Your task to perform on an android device: Clear the cart on costco.com. Image 0: 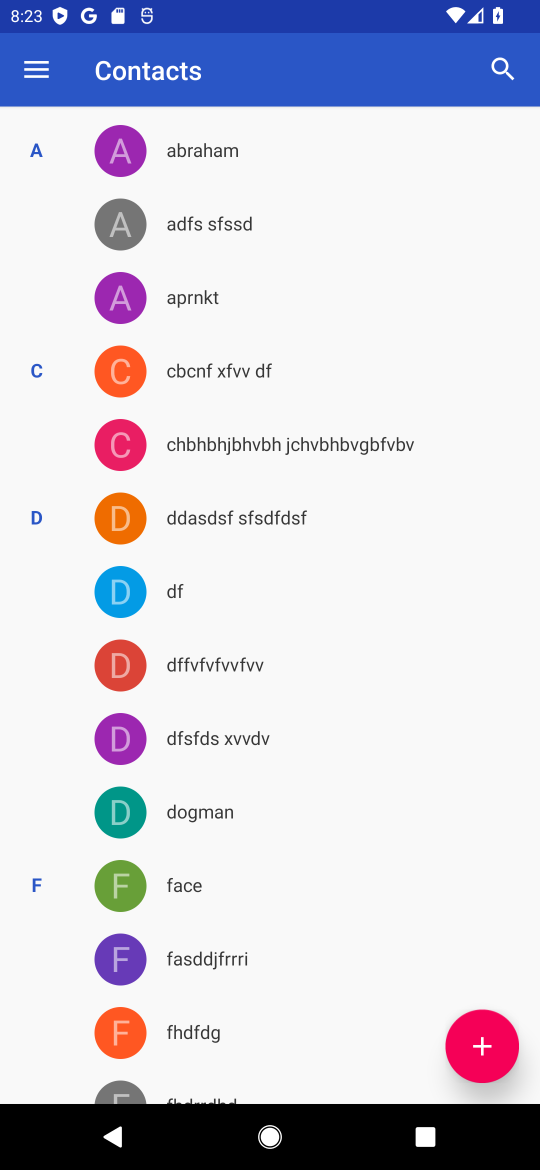
Step 0: press home button
Your task to perform on an android device: Clear the cart on costco.com. Image 1: 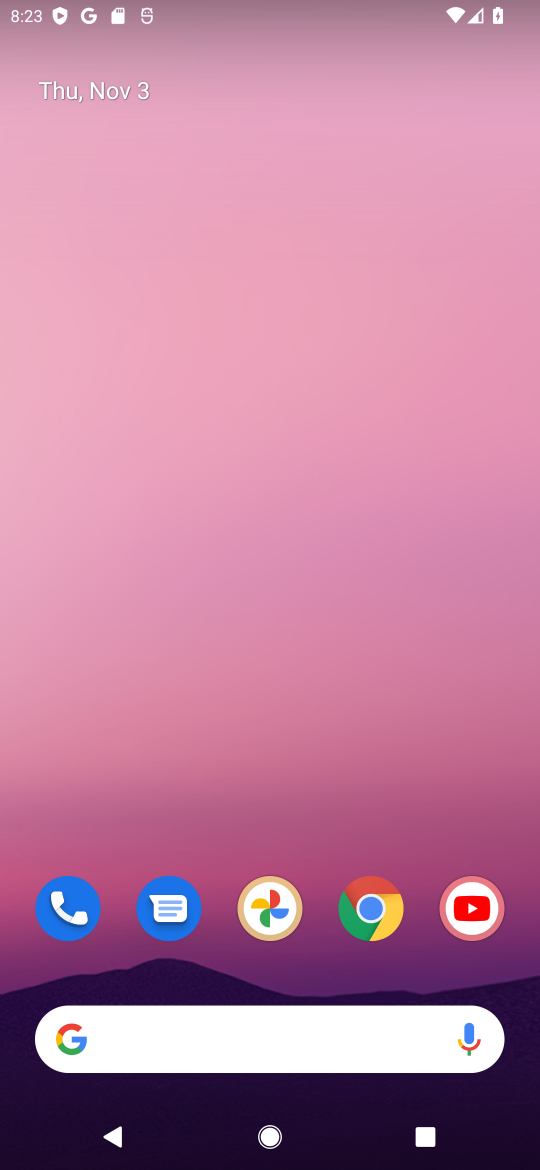
Step 1: click (382, 903)
Your task to perform on an android device: Clear the cart on costco.com. Image 2: 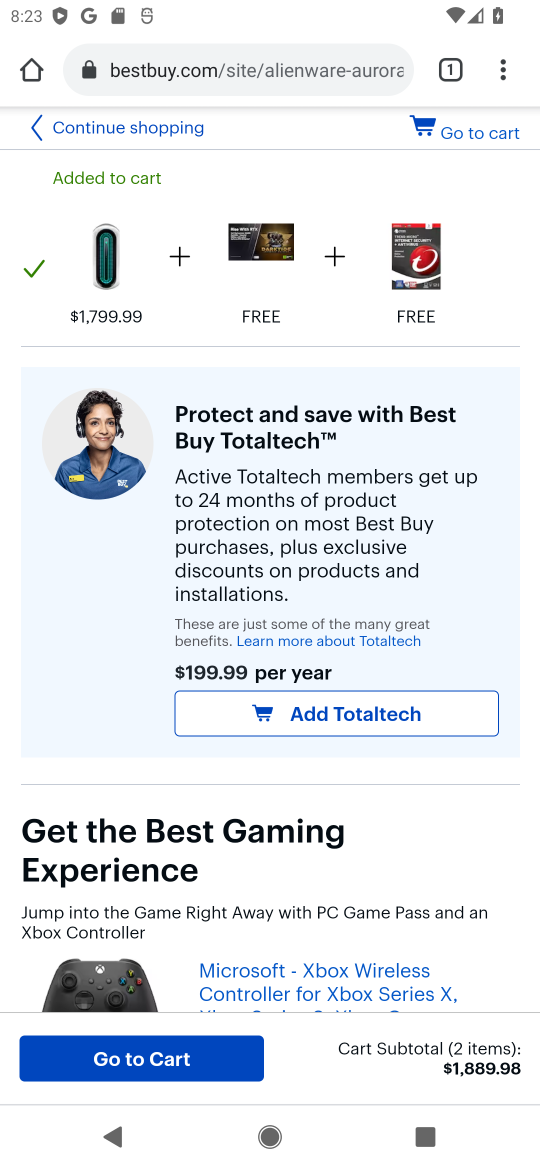
Step 2: click (337, 69)
Your task to perform on an android device: Clear the cart on costco.com. Image 3: 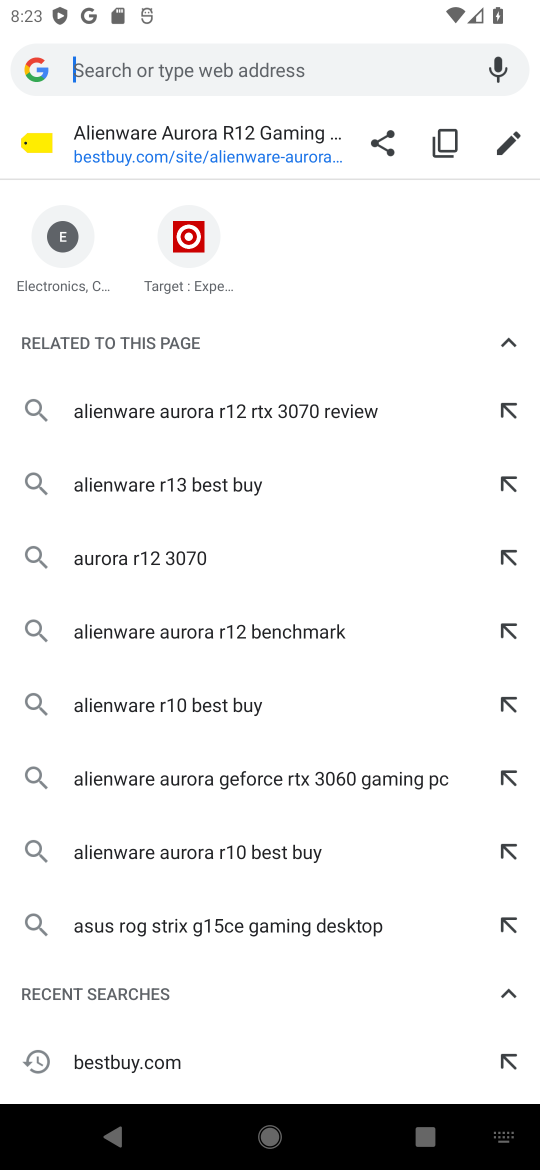
Step 3: type "costco.com"
Your task to perform on an android device: Clear the cart on costco.com. Image 4: 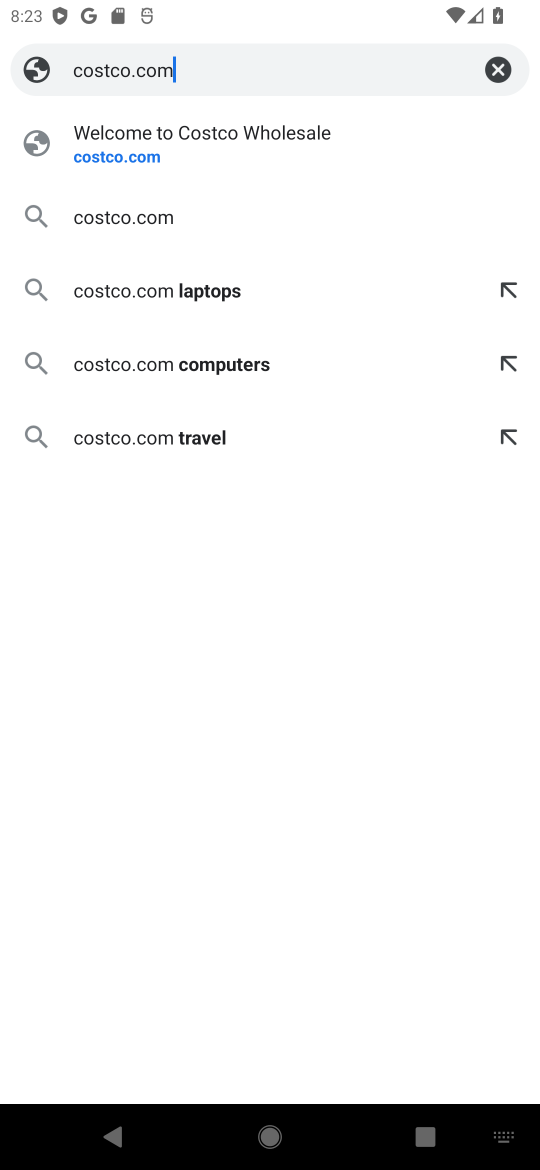
Step 4: click (147, 225)
Your task to perform on an android device: Clear the cart on costco.com. Image 5: 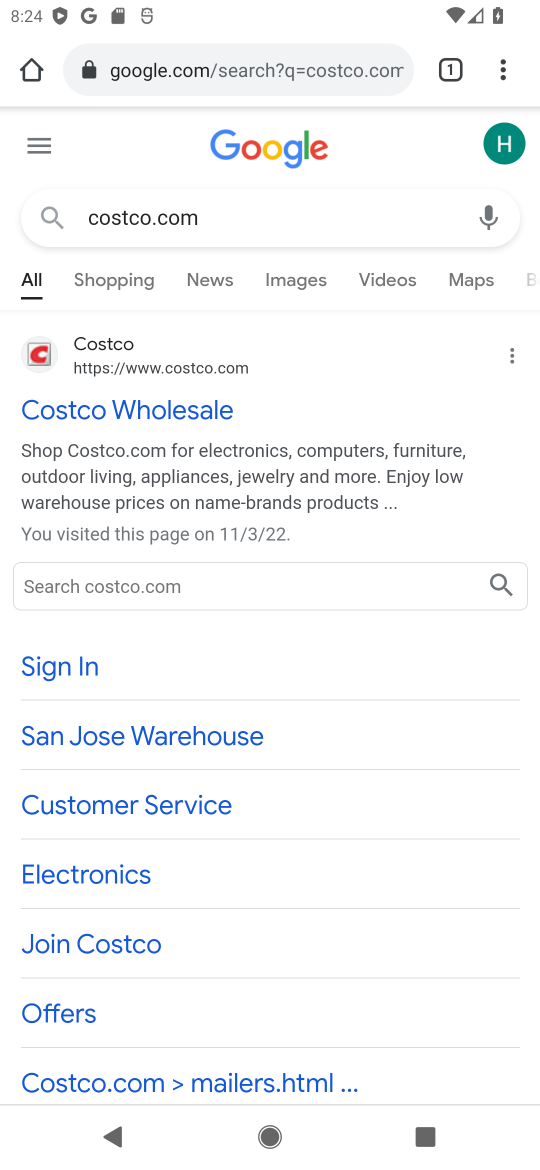
Step 5: click (208, 375)
Your task to perform on an android device: Clear the cart on costco.com. Image 6: 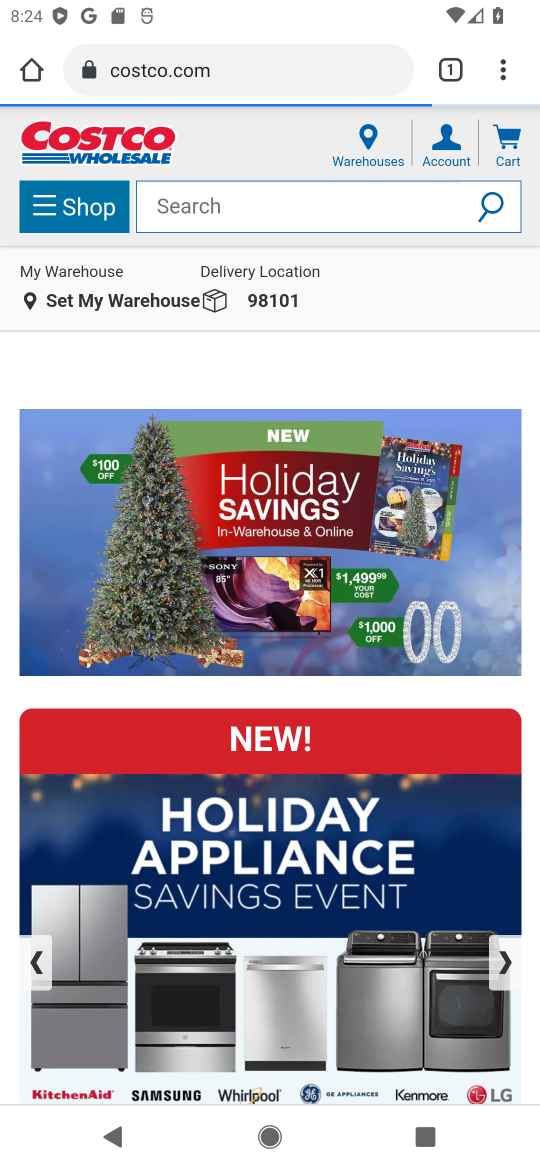
Step 6: click (513, 152)
Your task to perform on an android device: Clear the cart on costco.com. Image 7: 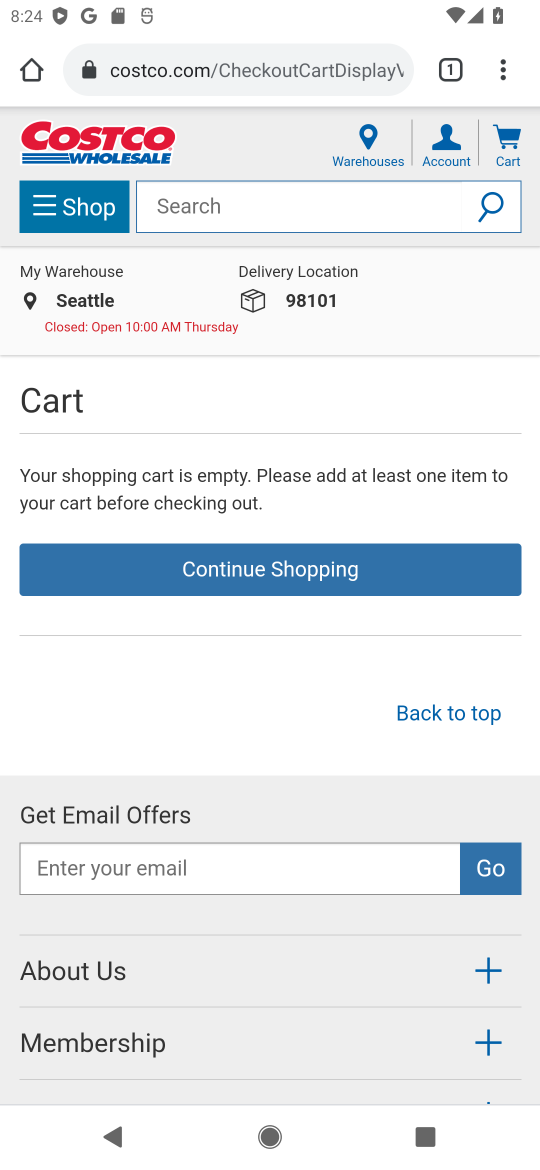
Step 7: task complete